Your task to perform on an android device: find snoozed emails in the gmail app Image 0: 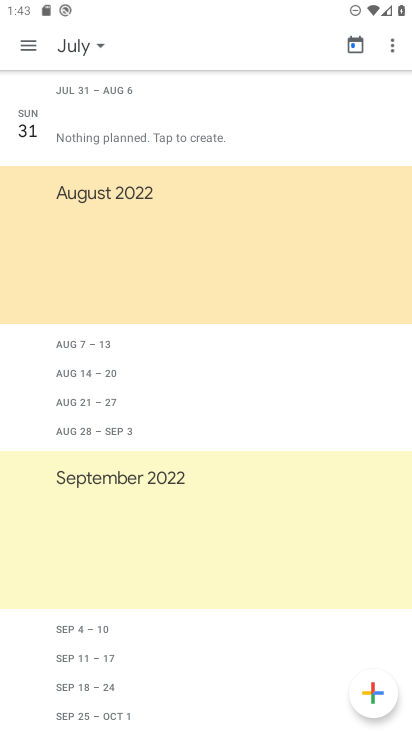
Step 0: press home button
Your task to perform on an android device: find snoozed emails in the gmail app Image 1: 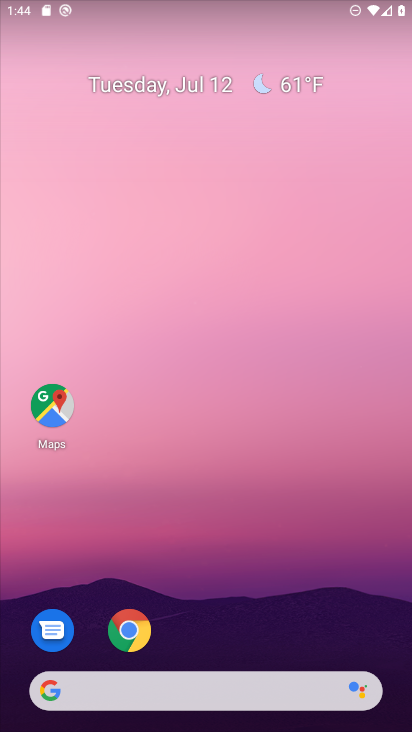
Step 1: drag from (210, 653) to (219, 166)
Your task to perform on an android device: find snoozed emails in the gmail app Image 2: 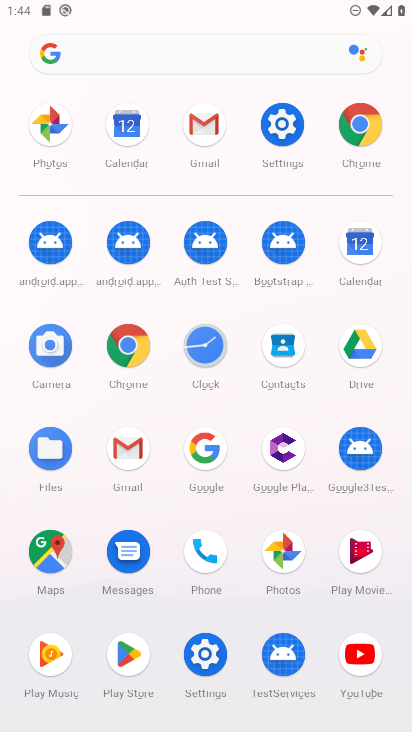
Step 2: click (203, 136)
Your task to perform on an android device: find snoozed emails in the gmail app Image 3: 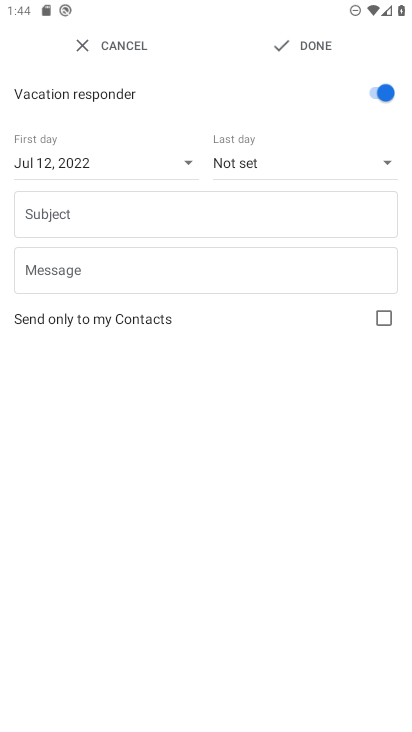
Step 3: press back button
Your task to perform on an android device: find snoozed emails in the gmail app Image 4: 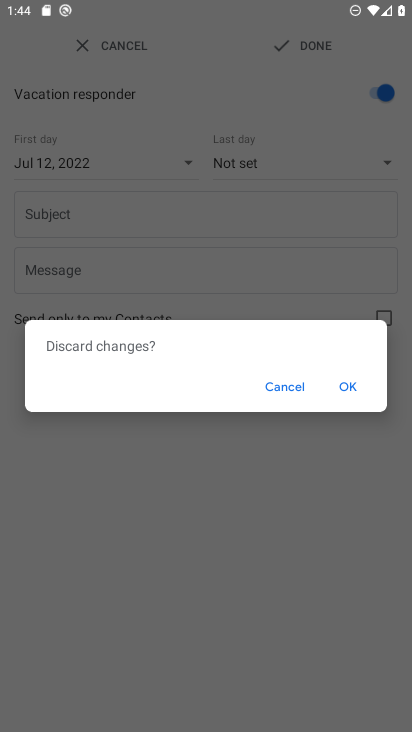
Step 4: click (358, 382)
Your task to perform on an android device: find snoozed emails in the gmail app Image 5: 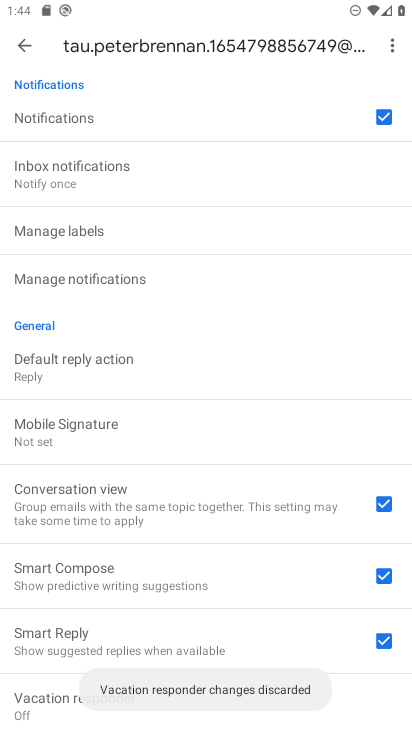
Step 5: click (31, 47)
Your task to perform on an android device: find snoozed emails in the gmail app Image 6: 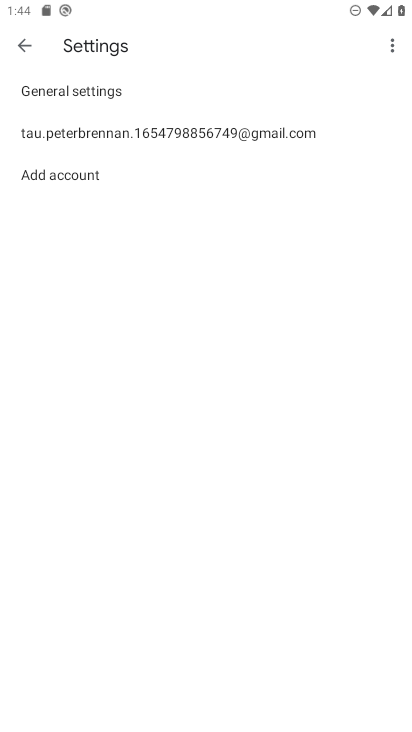
Step 6: click (31, 47)
Your task to perform on an android device: find snoozed emails in the gmail app Image 7: 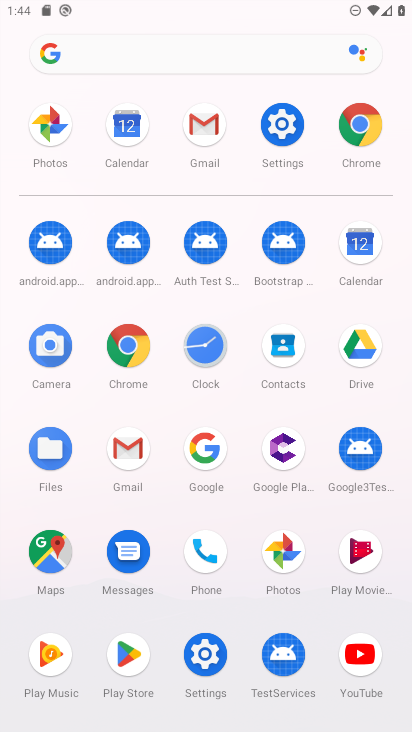
Step 7: click (185, 116)
Your task to perform on an android device: find snoozed emails in the gmail app Image 8: 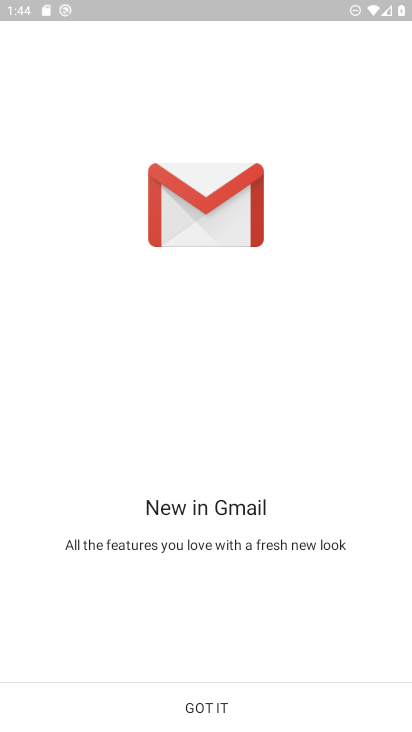
Step 8: click (238, 698)
Your task to perform on an android device: find snoozed emails in the gmail app Image 9: 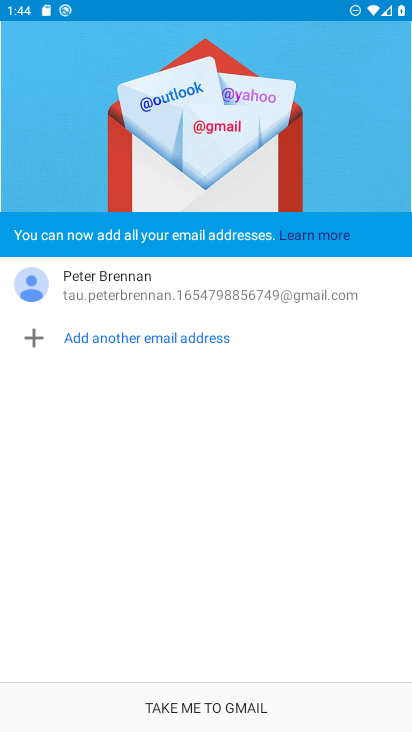
Step 9: click (240, 699)
Your task to perform on an android device: find snoozed emails in the gmail app Image 10: 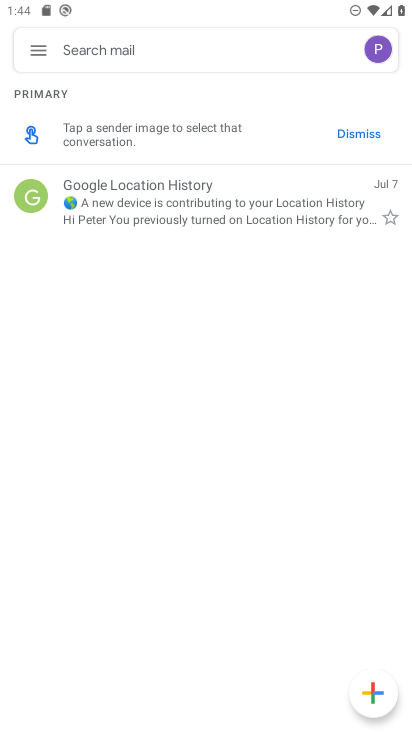
Step 10: click (38, 50)
Your task to perform on an android device: find snoozed emails in the gmail app Image 11: 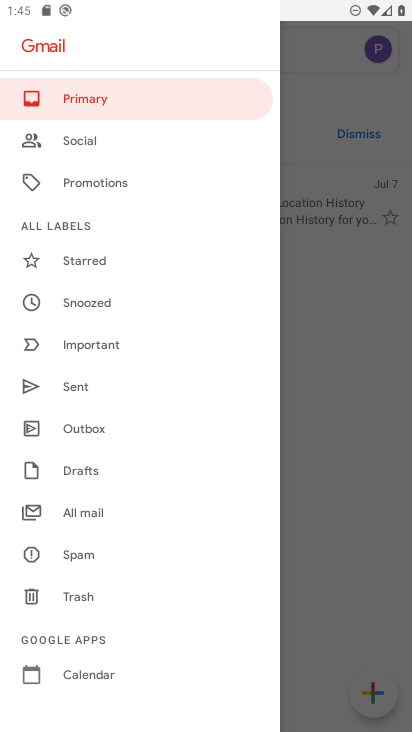
Step 11: click (107, 304)
Your task to perform on an android device: find snoozed emails in the gmail app Image 12: 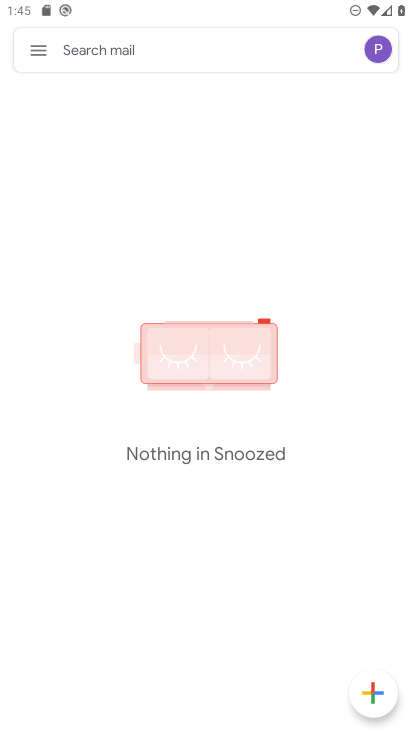
Step 12: task complete